Your task to perform on an android device: Is it going to rain tomorrow? Image 0: 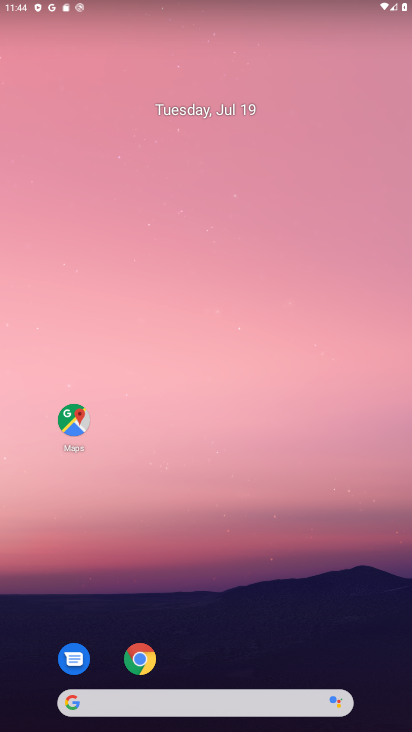
Step 0: click (220, 101)
Your task to perform on an android device: Is it going to rain tomorrow? Image 1: 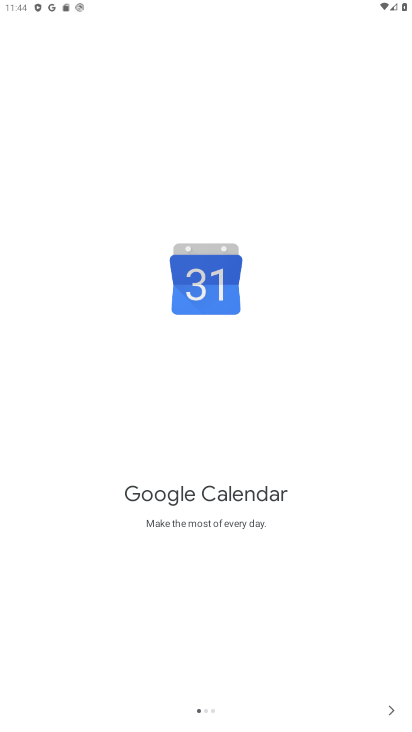
Step 1: press home button
Your task to perform on an android device: Is it going to rain tomorrow? Image 2: 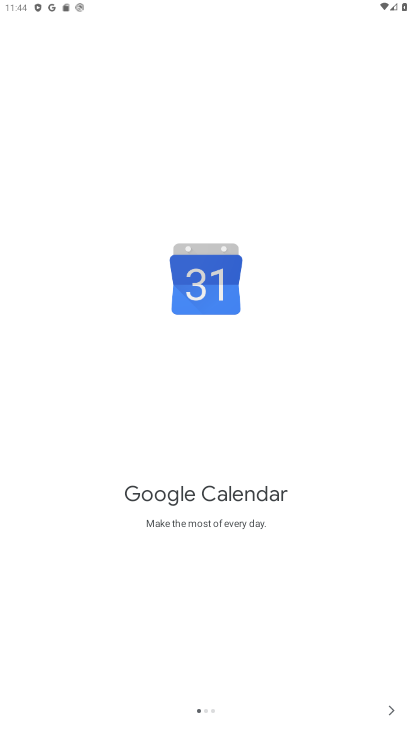
Step 2: press home button
Your task to perform on an android device: Is it going to rain tomorrow? Image 3: 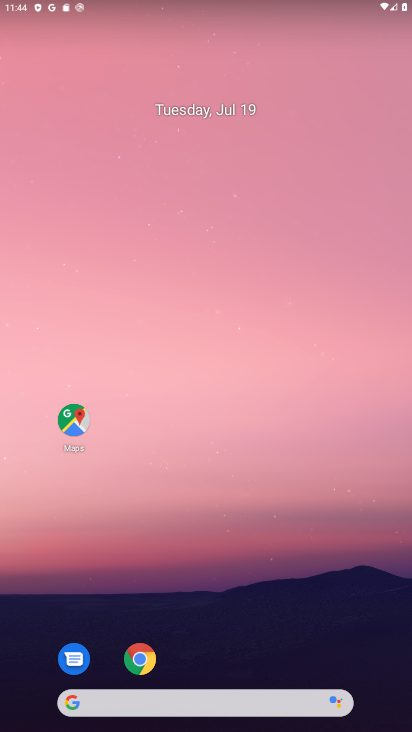
Step 3: drag from (268, 475) to (294, 93)
Your task to perform on an android device: Is it going to rain tomorrow? Image 4: 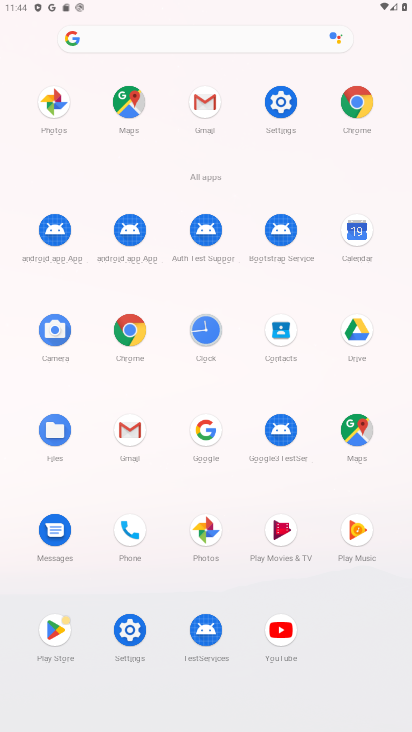
Step 4: click (348, 109)
Your task to perform on an android device: Is it going to rain tomorrow? Image 5: 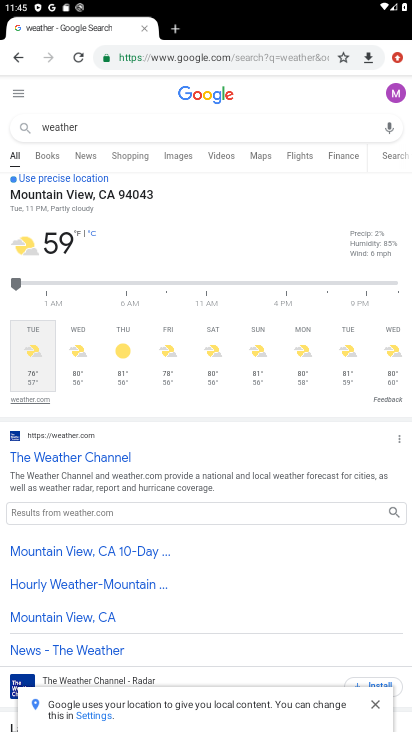
Step 5: click (66, 357)
Your task to perform on an android device: Is it going to rain tomorrow? Image 6: 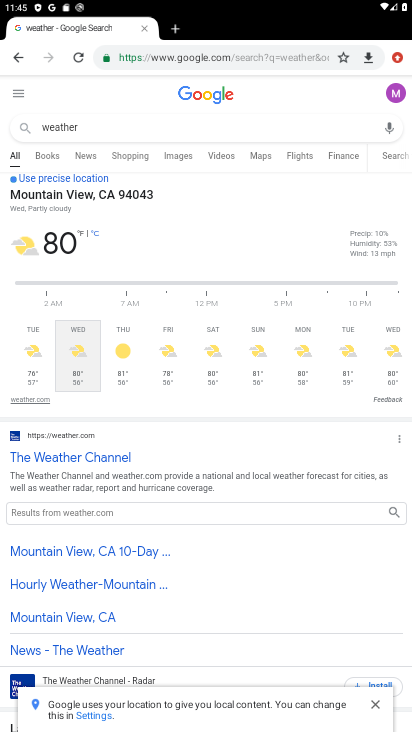
Step 6: task complete